Your task to perform on an android device: turn on location history Image 0: 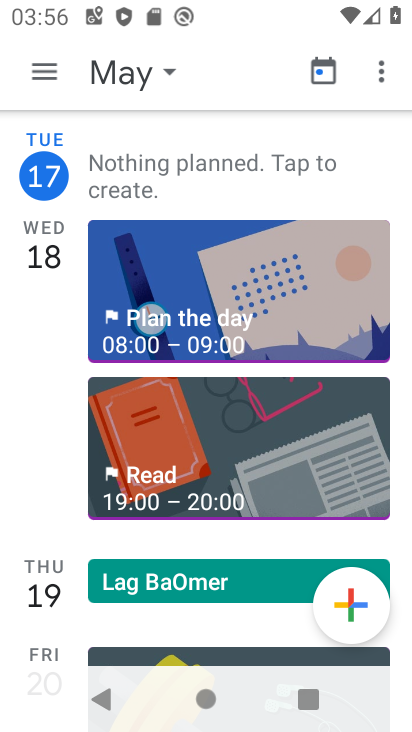
Step 0: press home button
Your task to perform on an android device: turn on location history Image 1: 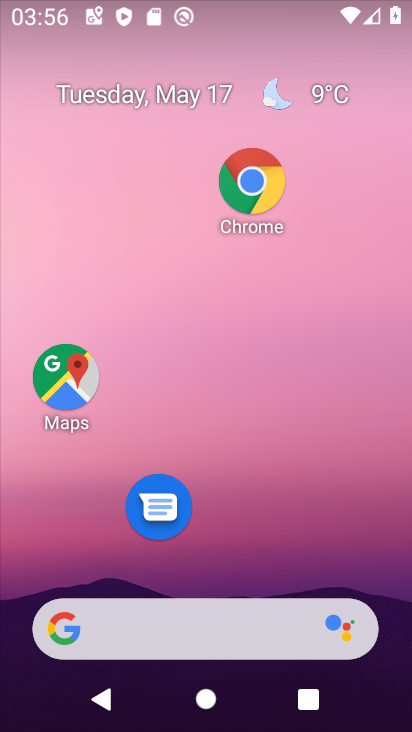
Step 1: drag from (218, 551) to (193, 70)
Your task to perform on an android device: turn on location history Image 2: 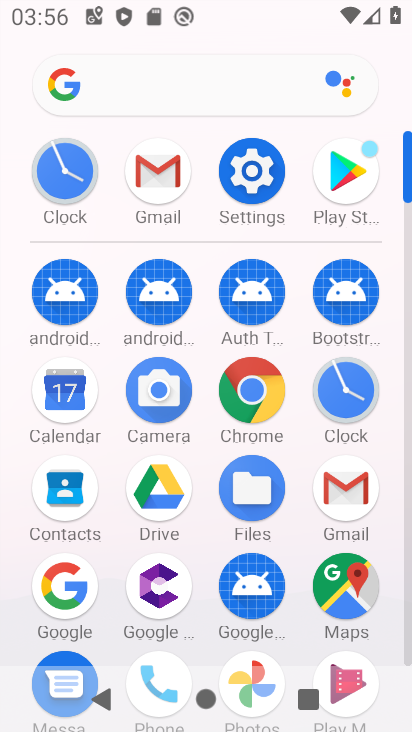
Step 2: click (235, 188)
Your task to perform on an android device: turn on location history Image 3: 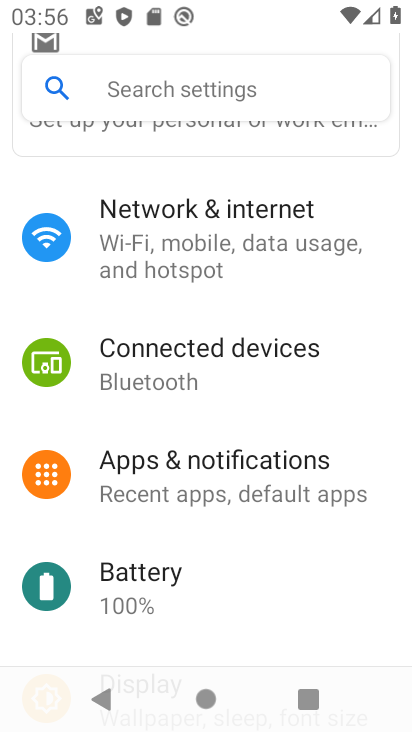
Step 3: drag from (170, 607) to (215, 268)
Your task to perform on an android device: turn on location history Image 4: 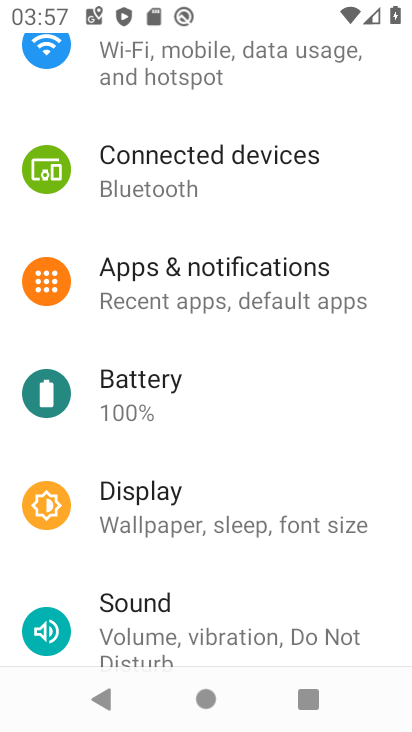
Step 4: drag from (163, 614) to (187, 290)
Your task to perform on an android device: turn on location history Image 5: 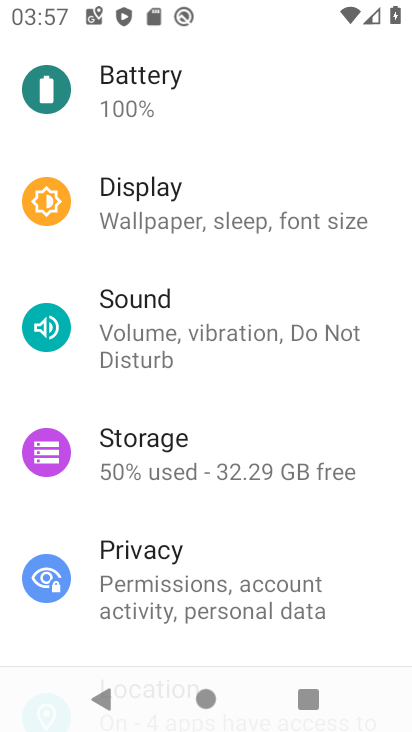
Step 5: drag from (178, 587) to (207, 164)
Your task to perform on an android device: turn on location history Image 6: 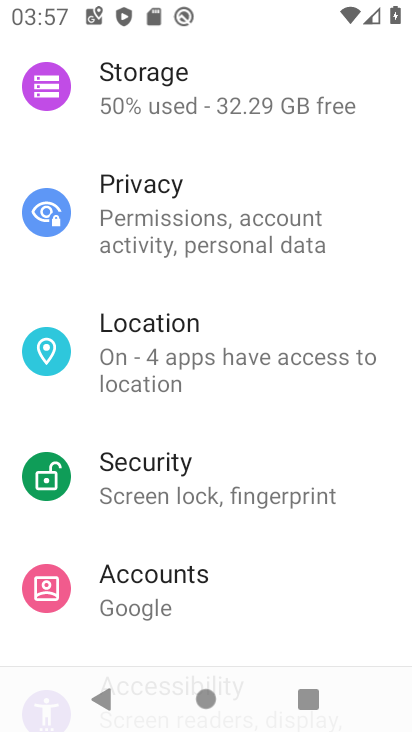
Step 6: click (134, 361)
Your task to perform on an android device: turn on location history Image 7: 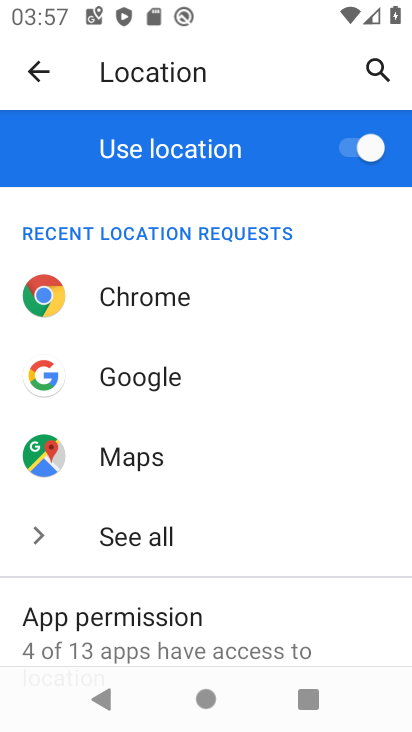
Step 7: drag from (169, 594) to (159, 278)
Your task to perform on an android device: turn on location history Image 8: 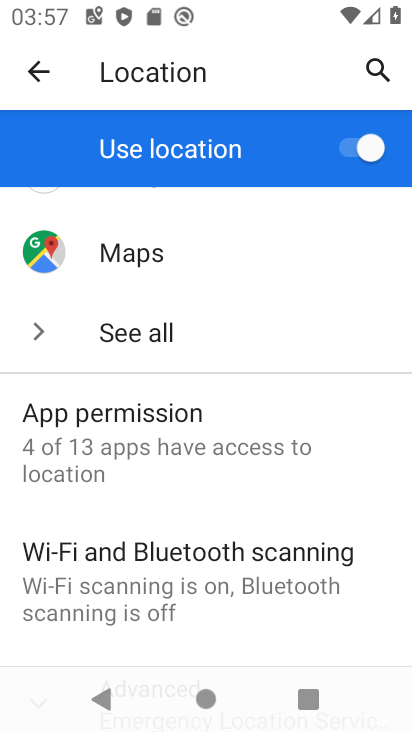
Step 8: drag from (153, 568) to (189, 91)
Your task to perform on an android device: turn on location history Image 9: 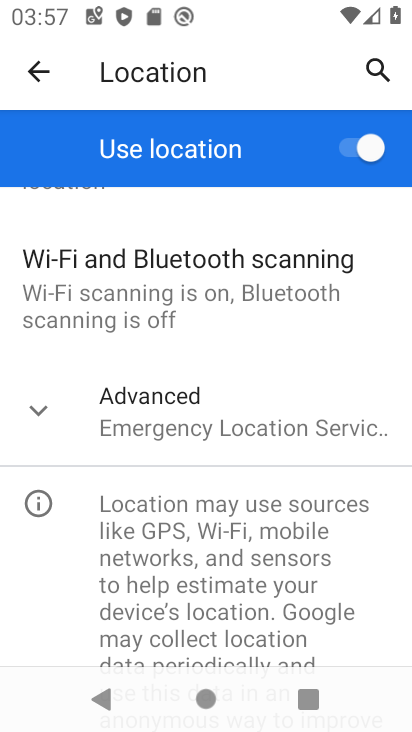
Step 9: click (141, 431)
Your task to perform on an android device: turn on location history Image 10: 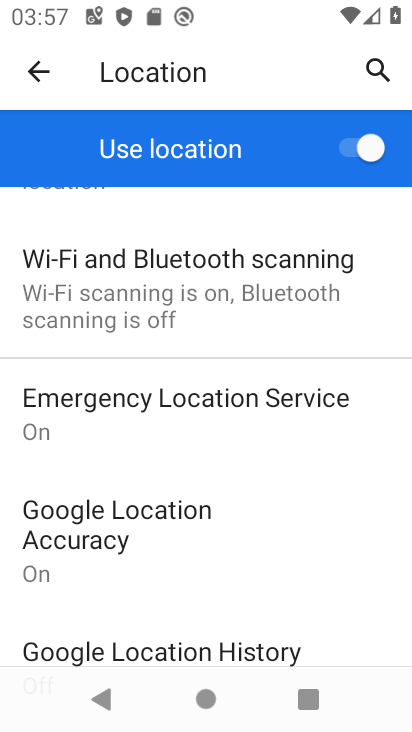
Step 10: drag from (198, 629) to (250, 257)
Your task to perform on an android device: turn on location history Image 11: 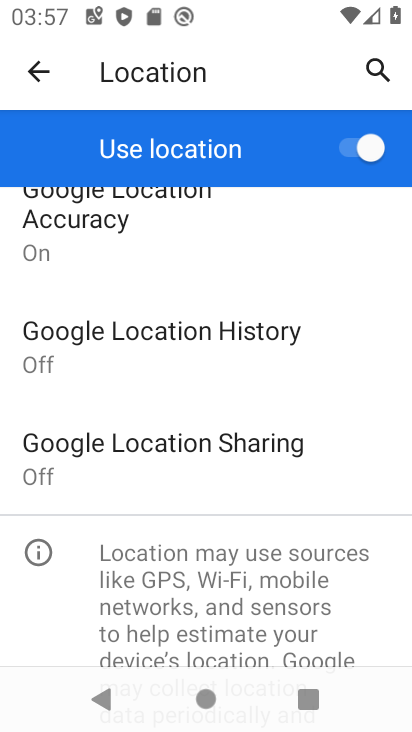
Step 11: click (184, 349)
Your task to perform on an android device: turn on location history Image 12: 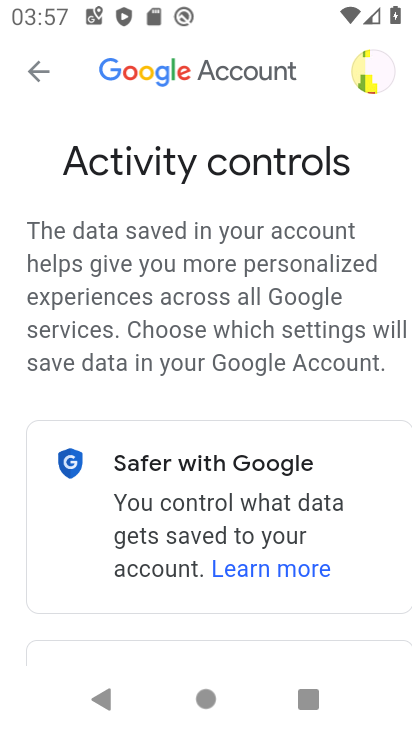
Step 12: task complete